Your task to perform on an android device: toggle notifications settings in the gmail app Image 0: 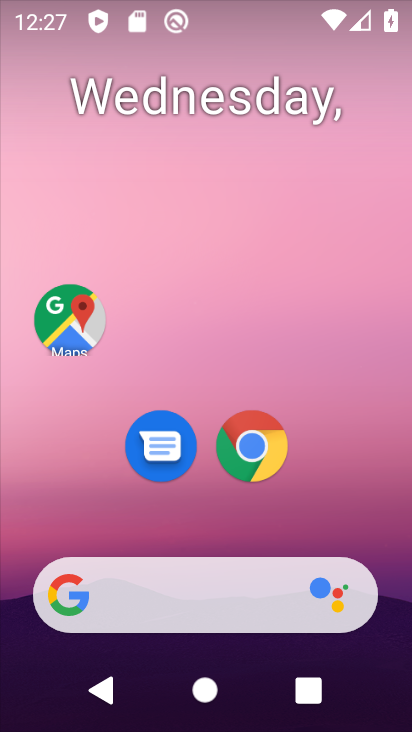
Step 0: drag from (356, 608) to (234, 68)
Your task to perform on an android device: toggle notifications settings in the gmail app Image 1: 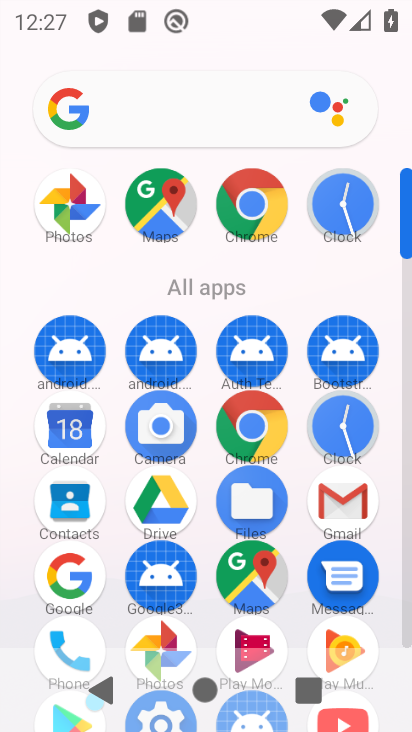
Step 1: click (342, 490)
Your task to perform on an android device: toggle notifications settings in the gmail app Image 2: 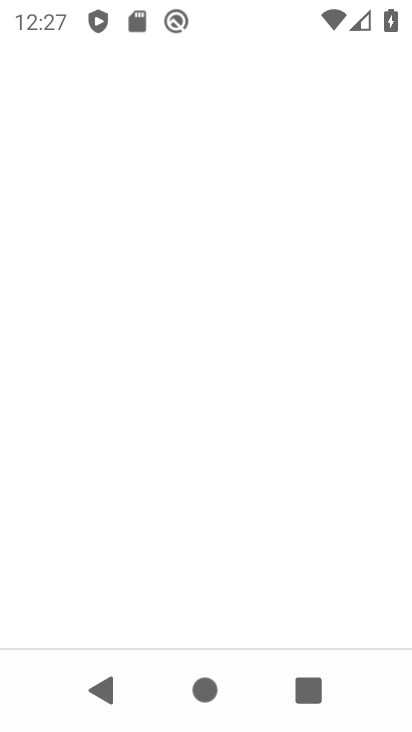
Step 2: click (342, 523)
Your task to perform on an android device: toggle notifications settings in the gmail app Image 3: 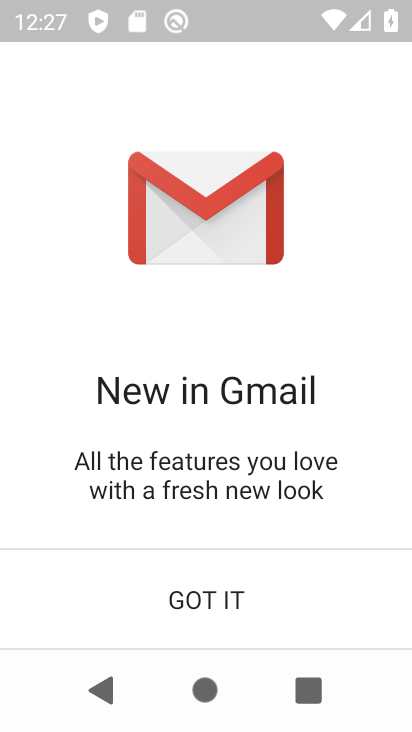
Step 3: click (333, 465)
Your task to perform on an android device: toggle notifications settings in the gmail app Image 4: 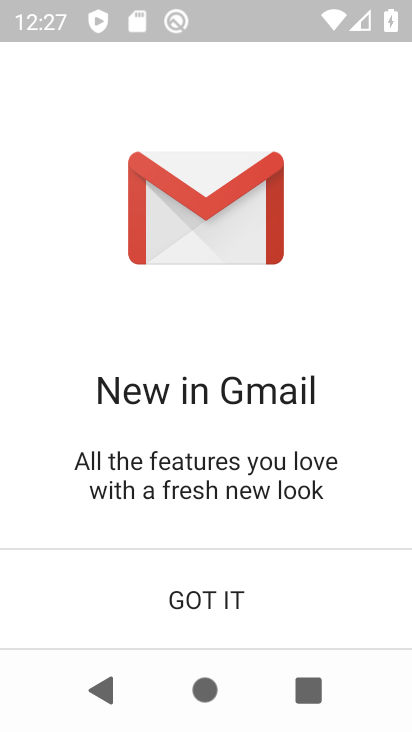
Step 4: click (338, 494)
Your task to perform on an android device: toggle notifications settings in the gmail app Image 5: 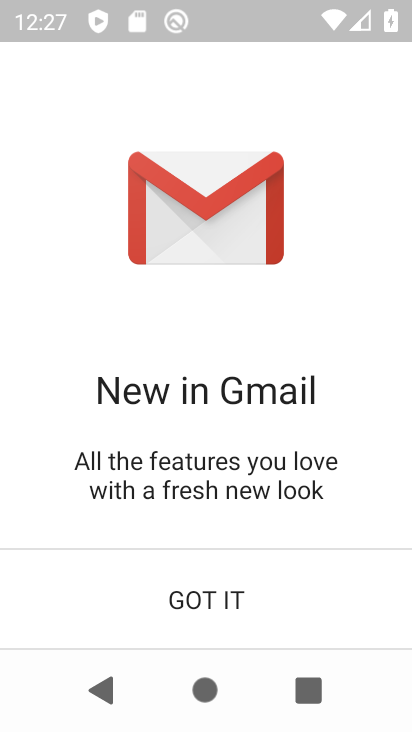
Step 5: click (334, 499)
Your task to perform on an android device: toggle notifications settings in the gmail app Image 6: 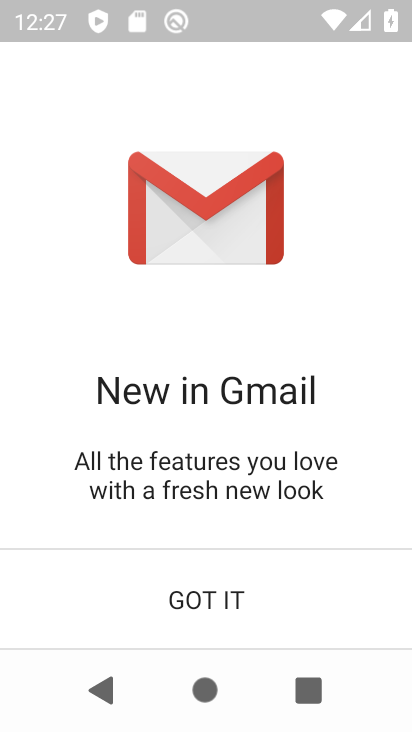
Step 6: click (335, 496)
Your task to perform on an android device: toggle notifications settings in the gmail app Image 7: 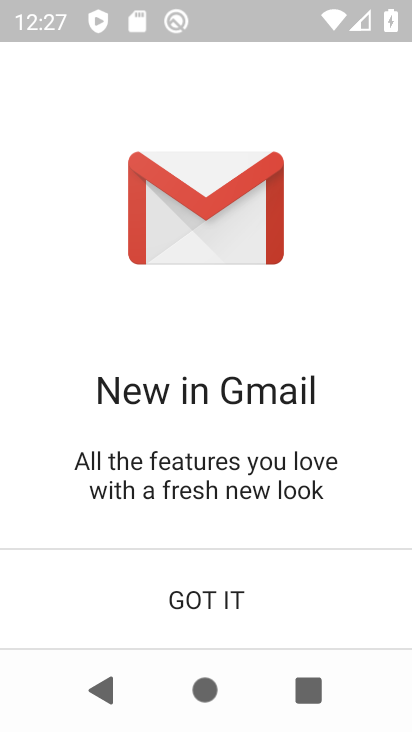
Step 7: click (337, 496)
Your task to perform on an android device: toggle notifications settings in the gmail app Image 8: 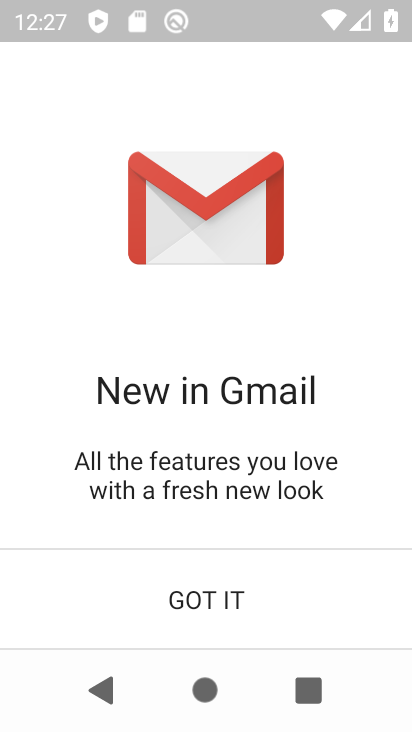
Step 8: click (328, 475)
Your task to perform on an android device: toggle notifications settings in the gmail app Image 9: 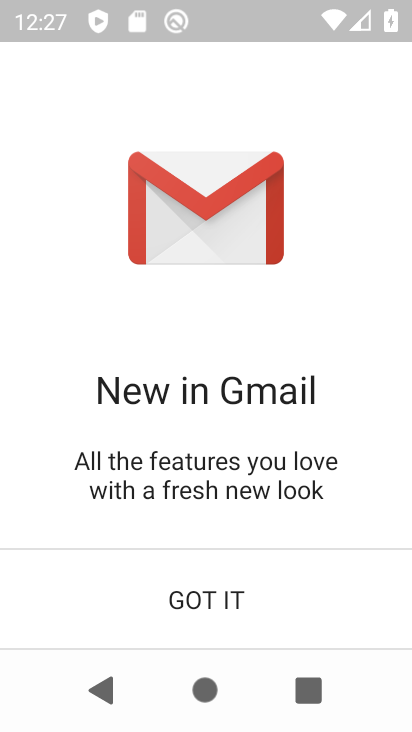
Step 9: click (217, 603)
Your task to perform on an android device: toggle notifications settings in the gmail app Image 10: 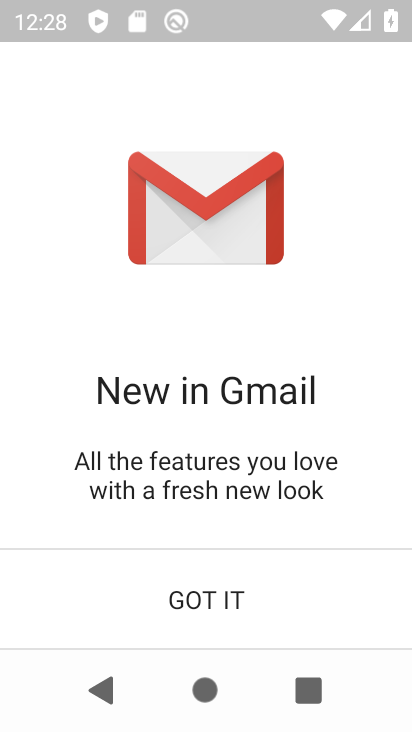
Step 10: click (218, 604)
Your task to perform on an android device: toggle notifications settings in the gmail app Image 11: 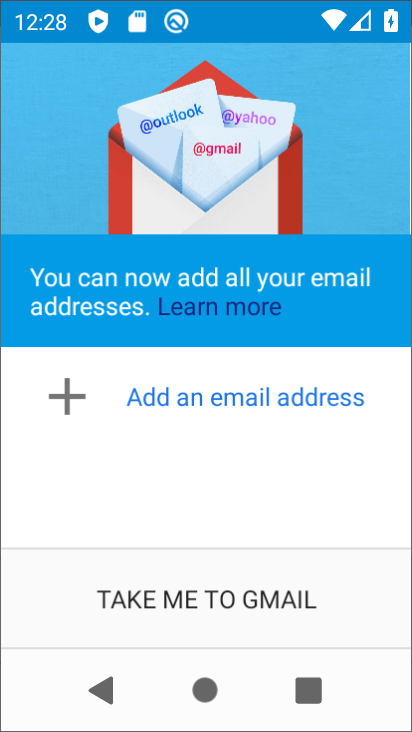
Step 11: click (213, 573)
Your task to perform on an android device: toggle notifications settings in the gmail app Image 12: 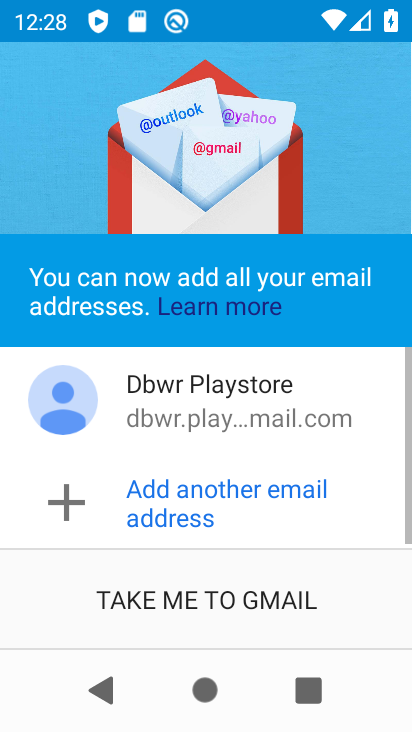
Step 12: click (213, 573)
Your task to perform on an android device: toggle notifications settings in the gmail app Image 13: 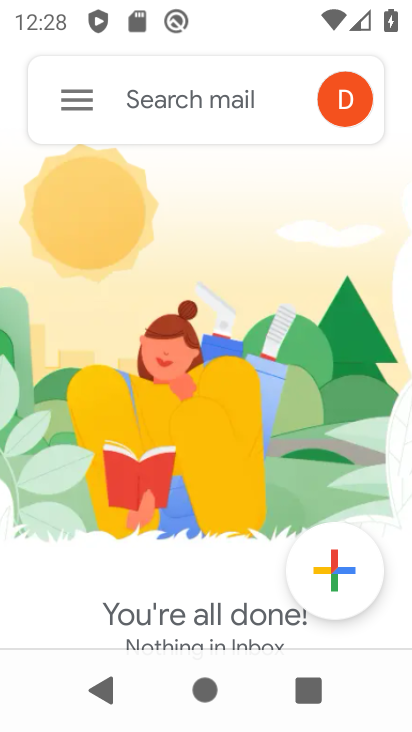
Step 13: click (78, 111)
Your task to perform on an android device: toggle notifications settings in the gmail app Image 14: 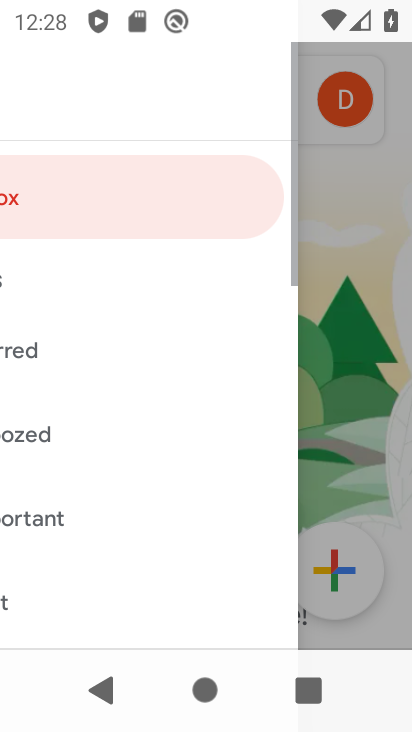
Step 14: click (89, 84)
Your task to perform on an android device: toggle notifications settings in the gmail app Image 15: 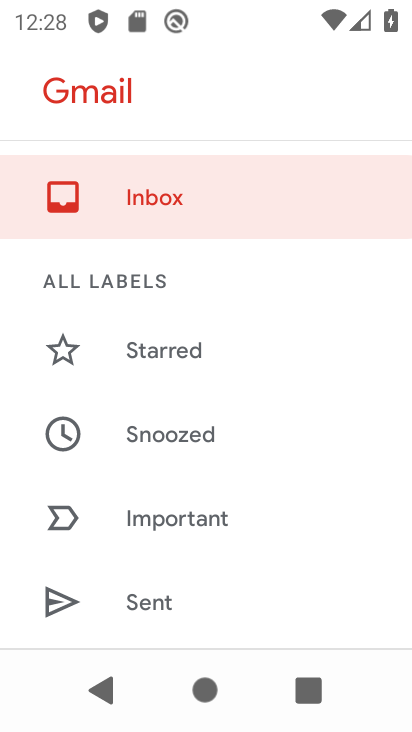
Step 15: drag from (233, 502) to (215, 159)
Your task to perform on an android device: toggle notifications settings in the gmail app Image 16: 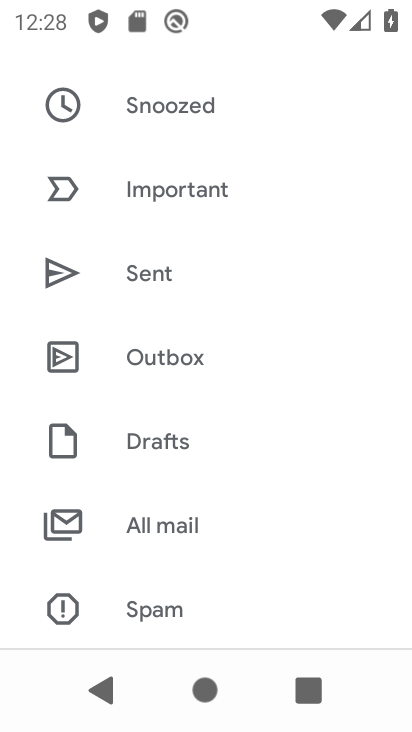
Step 16: drag from (266, 320) to (252, 77)
Your task to perform on an android device: toggle notifications settings in the gmail app Image 17: 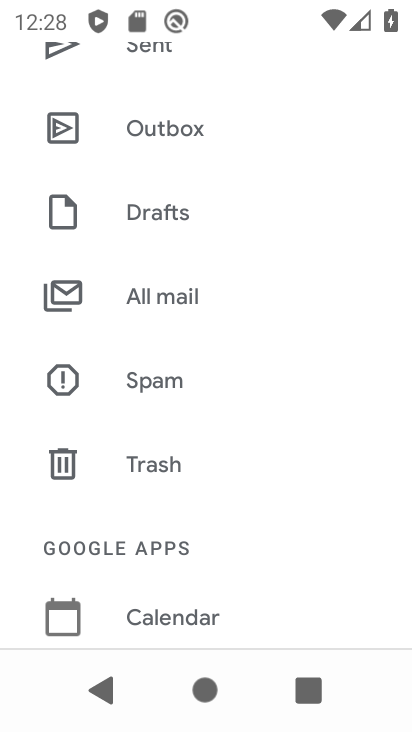
Step 17: drag from (218, 403) to (203, 209)
Your task to perform on an android device: toggle notifications settings in the gmail app Image 18: 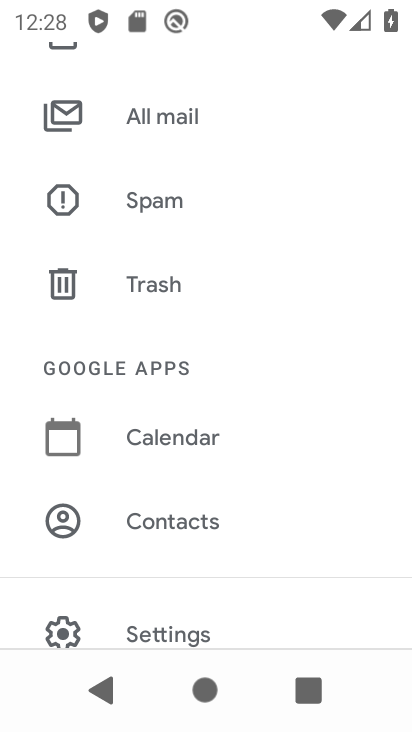
Step 18: drag from (166, 561) to (150, 207)
Your task to perform on an android device: toggle notifications settings in the gmail app Image 19: 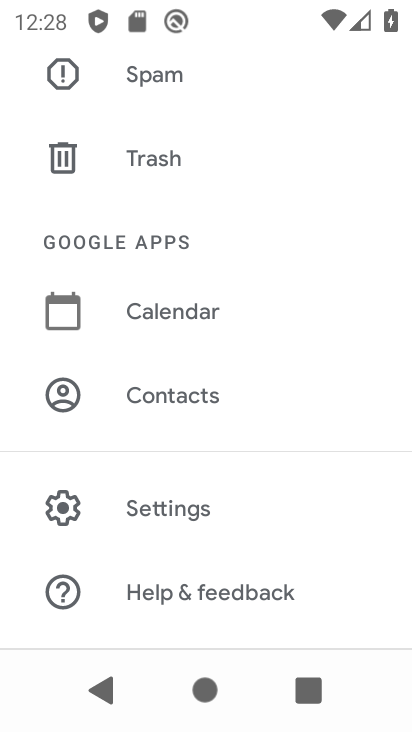
Step 19: click (175, 505)
Your task to perform on an android device: toggle notifications settings in the gmail app Image 20: 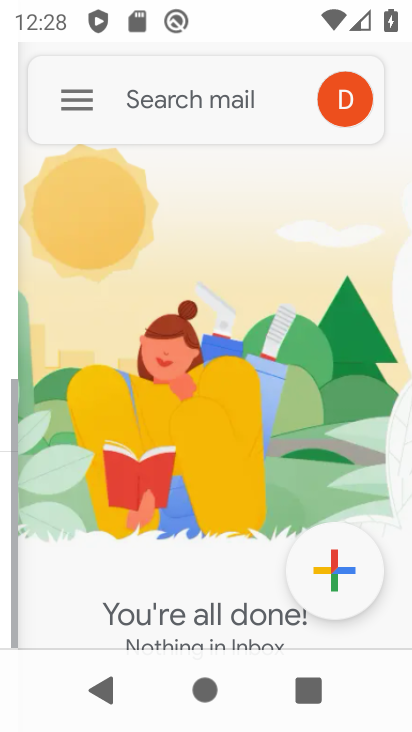
Step 20: click (175, 505)
Your task to perform on an android device: toggle notifications settings in the gmail app Image 21: 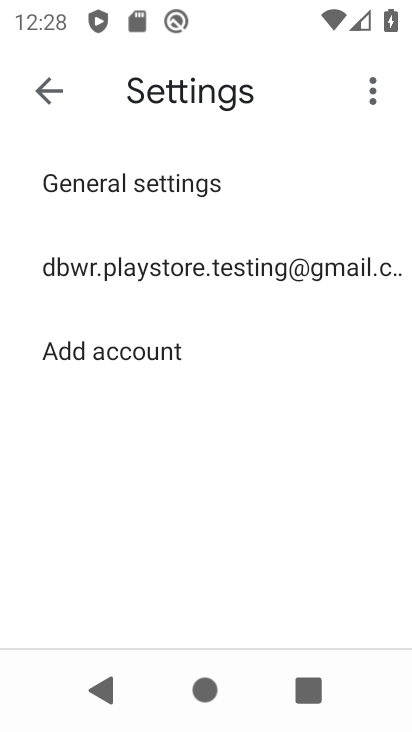
Step 21: click (127, 268)
Your task to perform on an android device: toggle notifications settings in the gmail app Image 22: 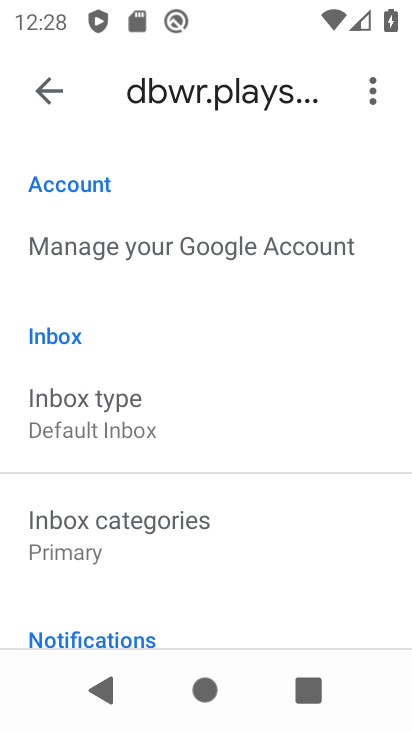
Step 22: drag from (140, 517) to (171, 355)
Your task to perform on an android device: toggle notifications settings in the gmail app Image 23: 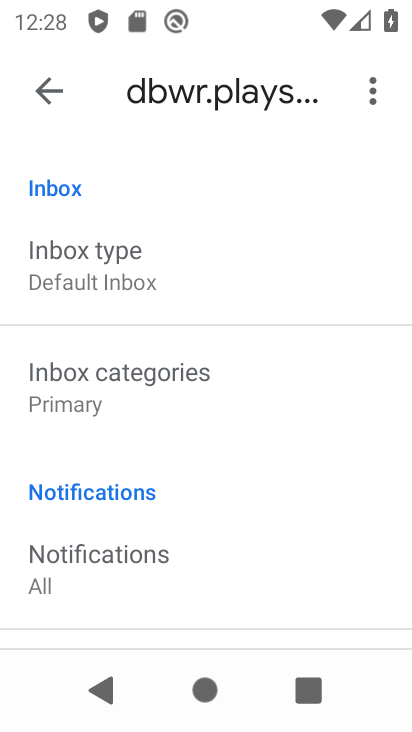
Step 23: click (82, 540)
Your task to perform on an android device: toggle notifications settings in the gmail app Image 24: 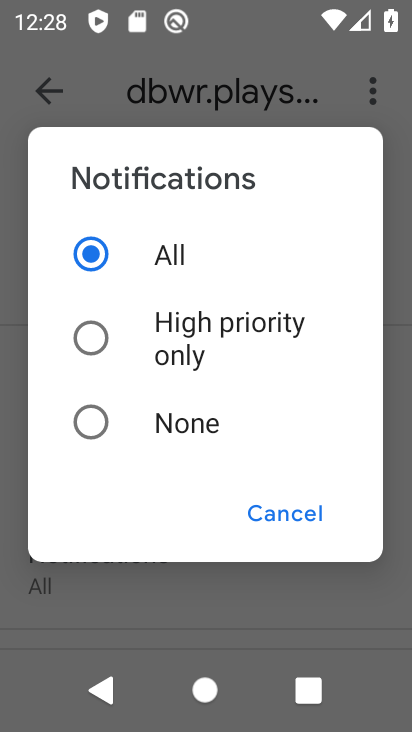
Step 24: click (91, 340)
Your task to perform on an android device: toggle notifications settings in the gmail app Image 25: 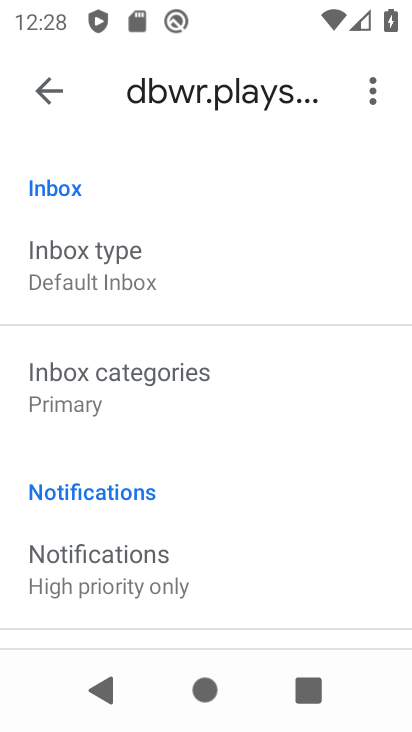
Step 25: task complete